Your task to perform on an android device: turn on location history Image 0: 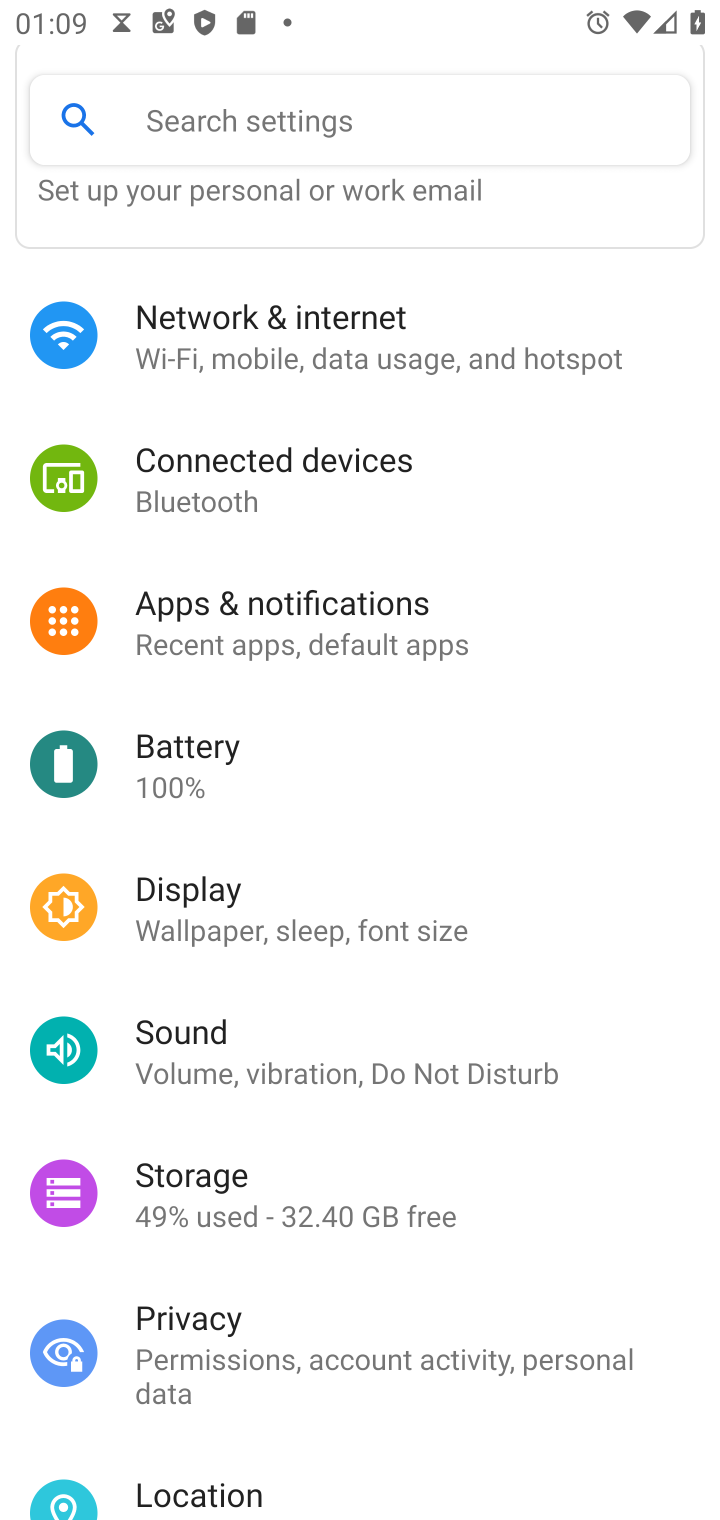
Step 0: press home button
Your task to perform on an android device: turn on location history Image 1: 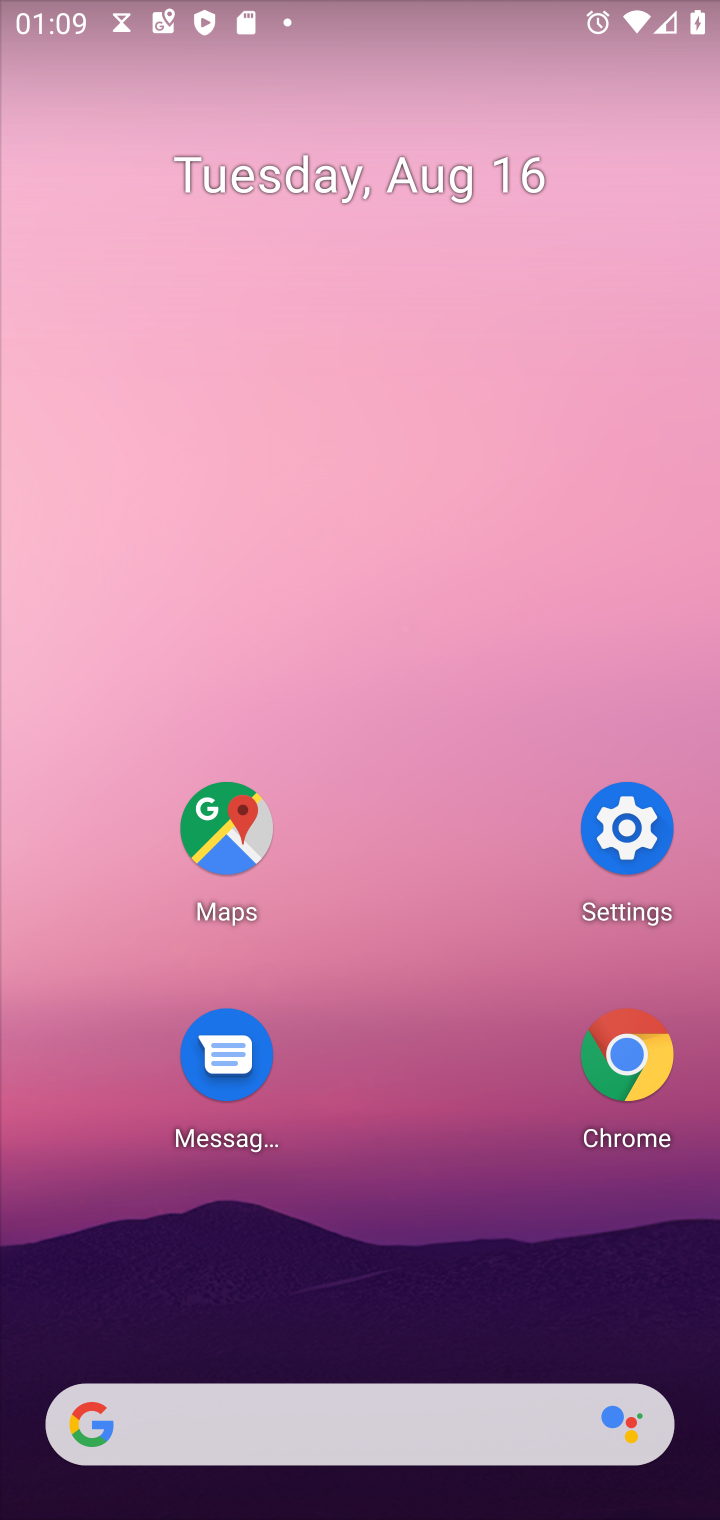
Step 1: click (218, 845)
Your task to perform on an android device: turn on location history Image 2: 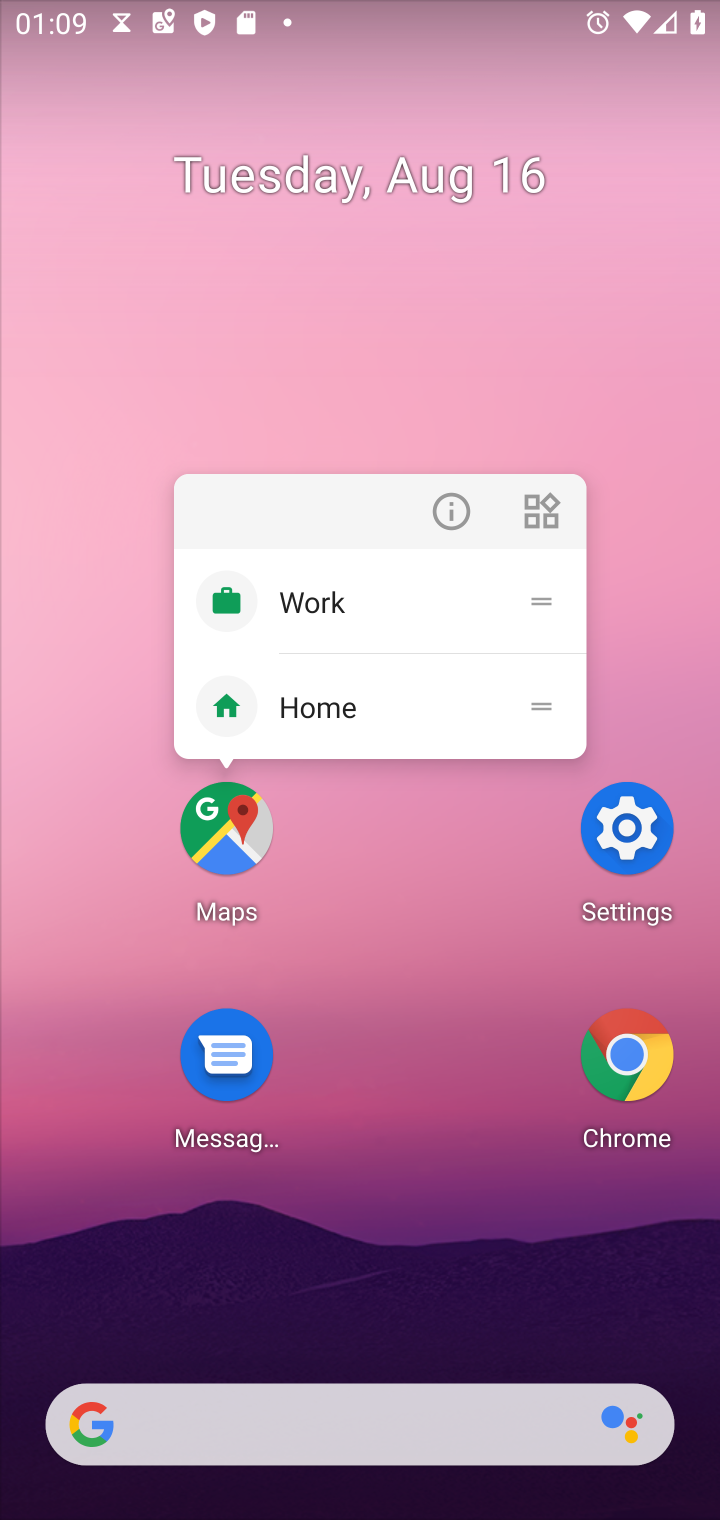
Step 2: click (214, 854)
Your task to perform on an android device: turn on location history Image 3: 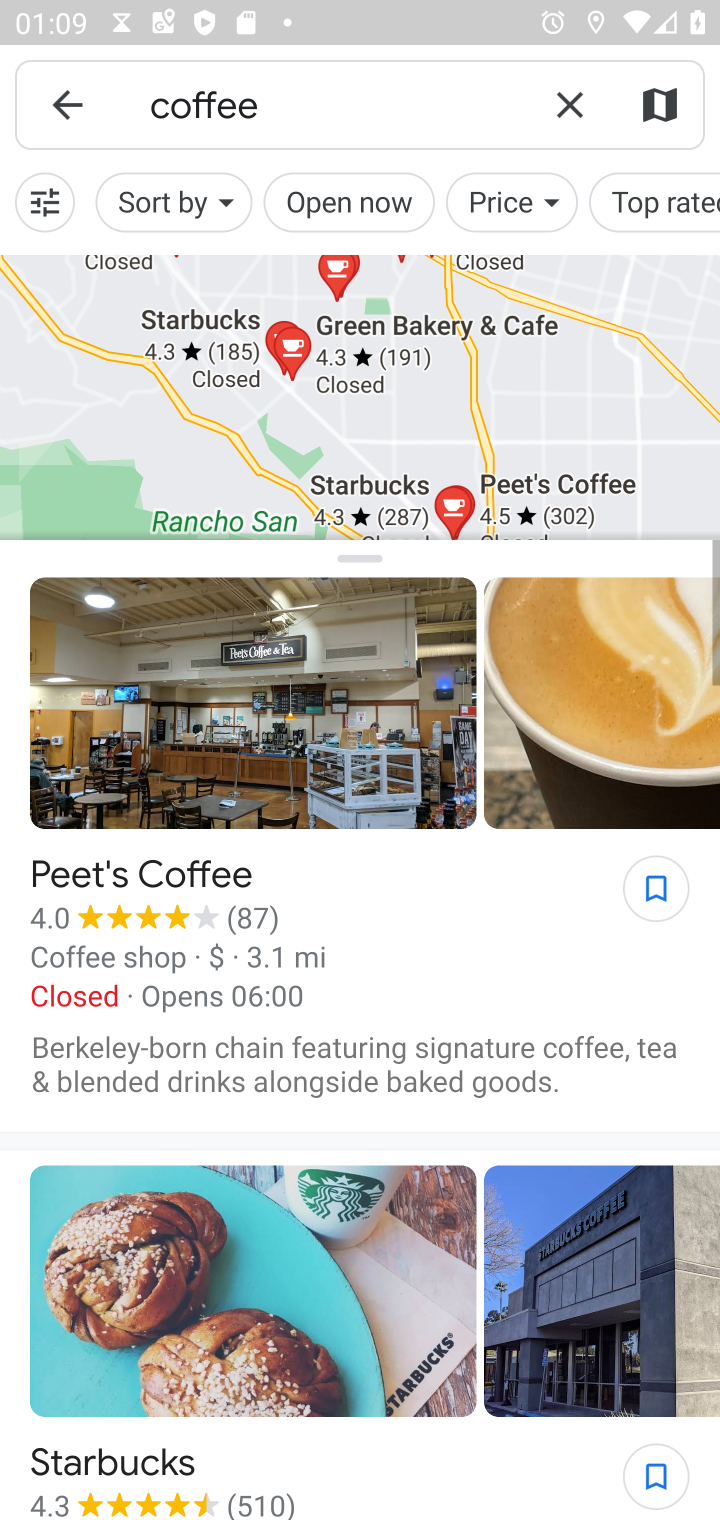
Step 3: press back button
Your task to perform on an android device: turn on location history Image 4: 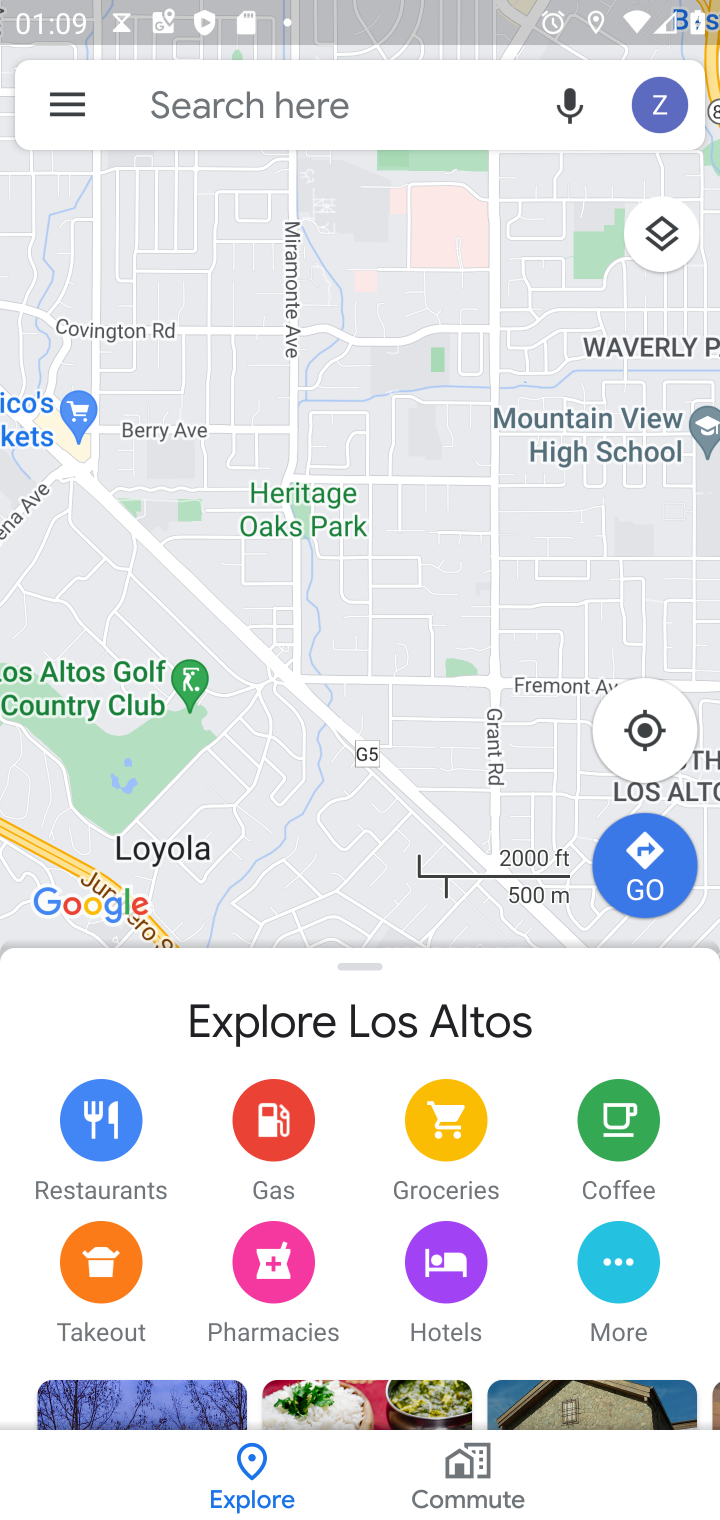
Step 4: click (64, 109)
Your task to perform on an android device: turn on location history Image 5: 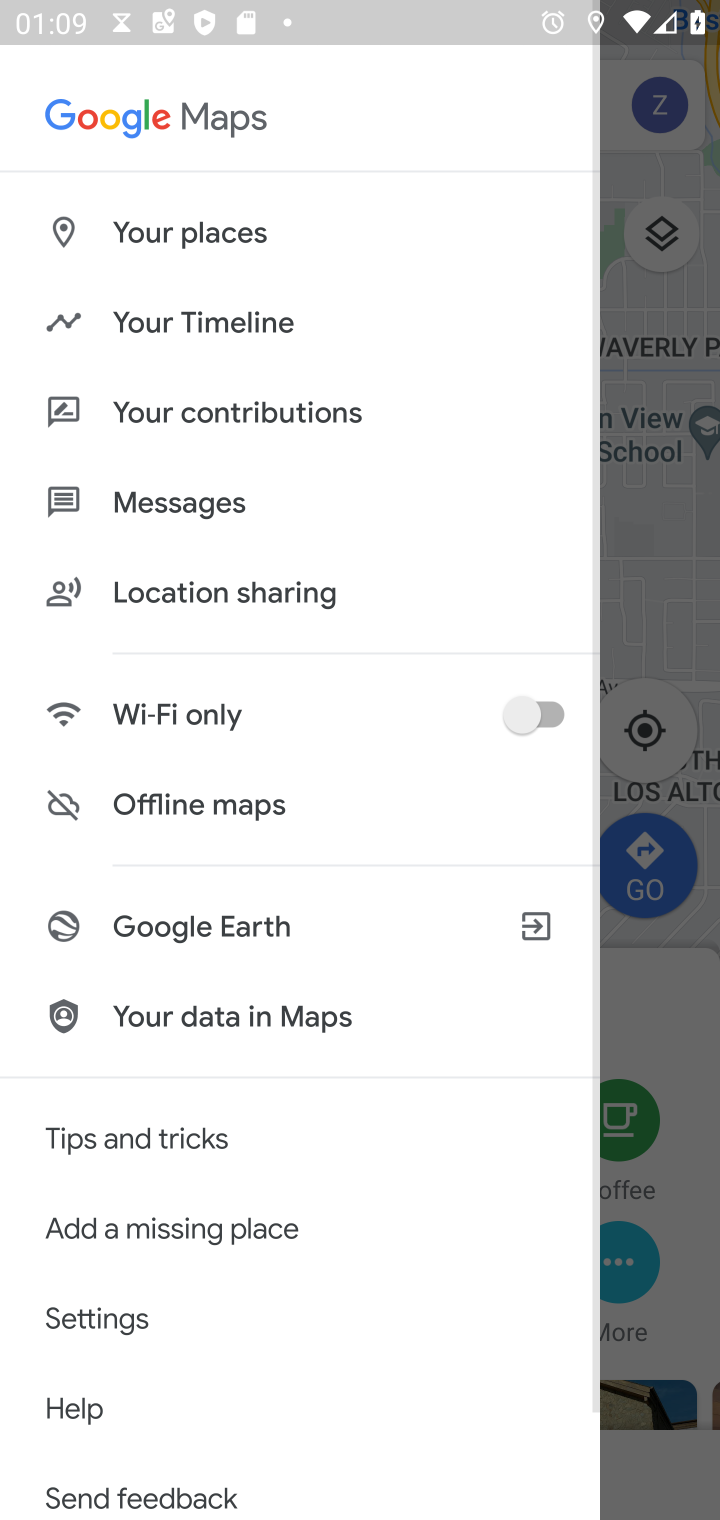
Step 5: click (247, 325)
Your task to perform on an android device: turn on location history Image 6: 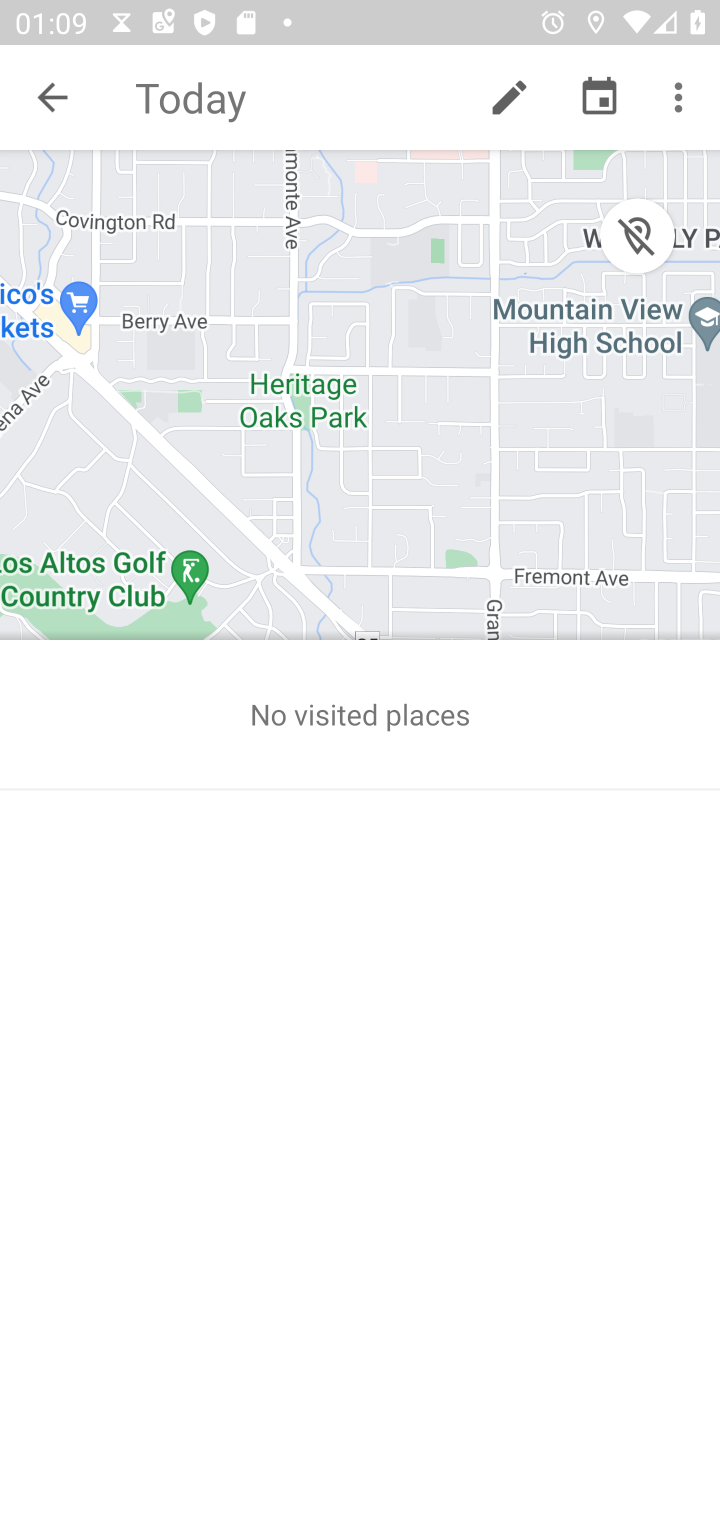
Step 6: click (669, 107)
Your task to perform on an android device: turn on location history Image 7: 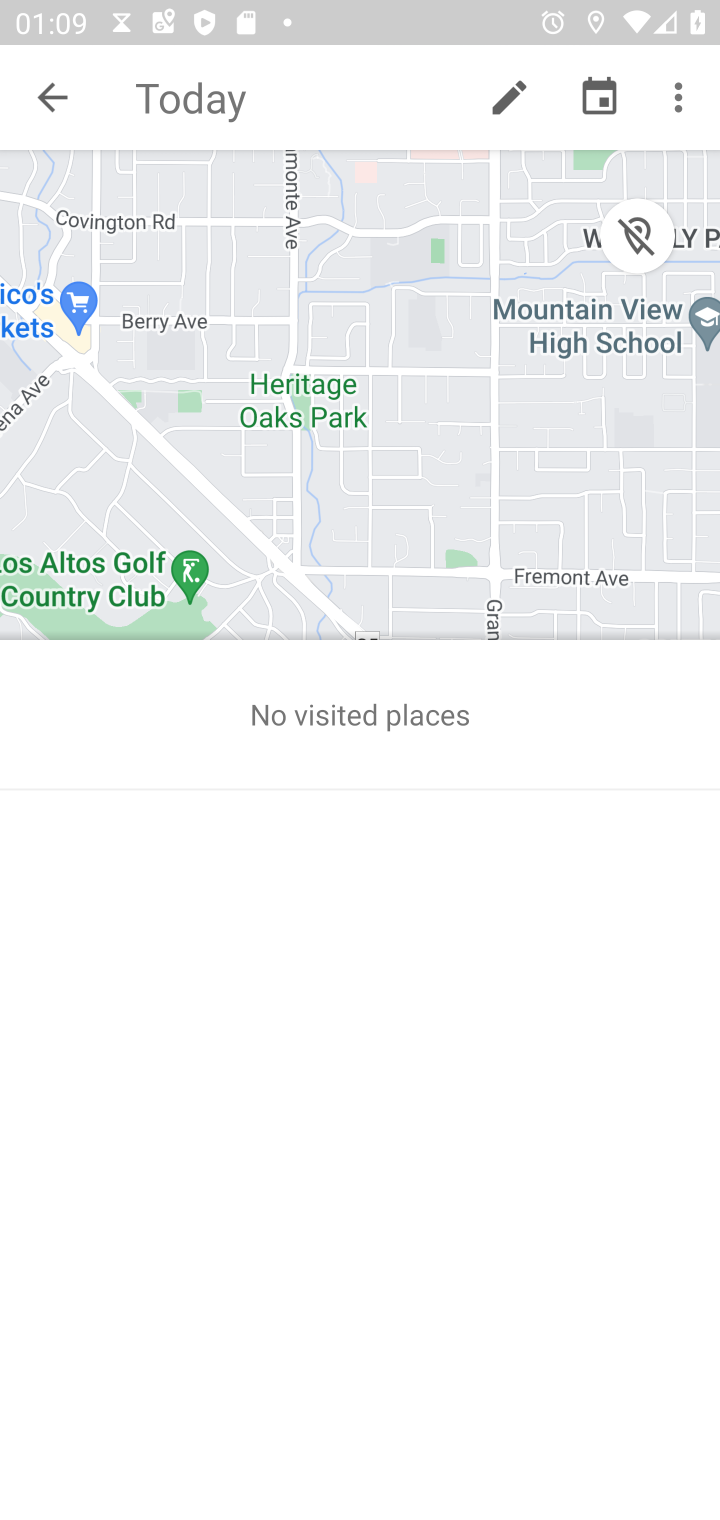
Step 7: click (672, 104)
Your task to perform on an android device: turn on location history Image 8: 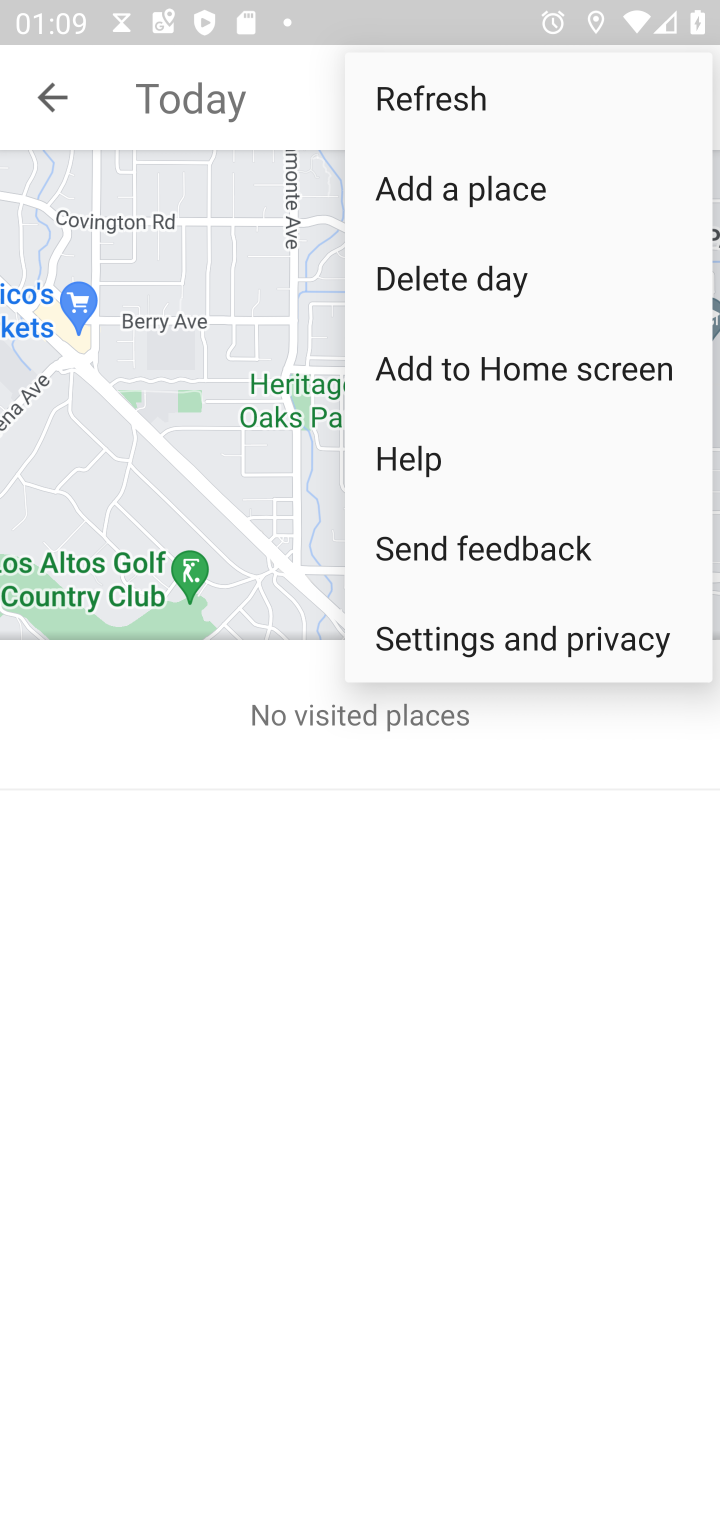
Step 8: click (547, 623)
Your task to perform on an android device: turn on location history Image 9: 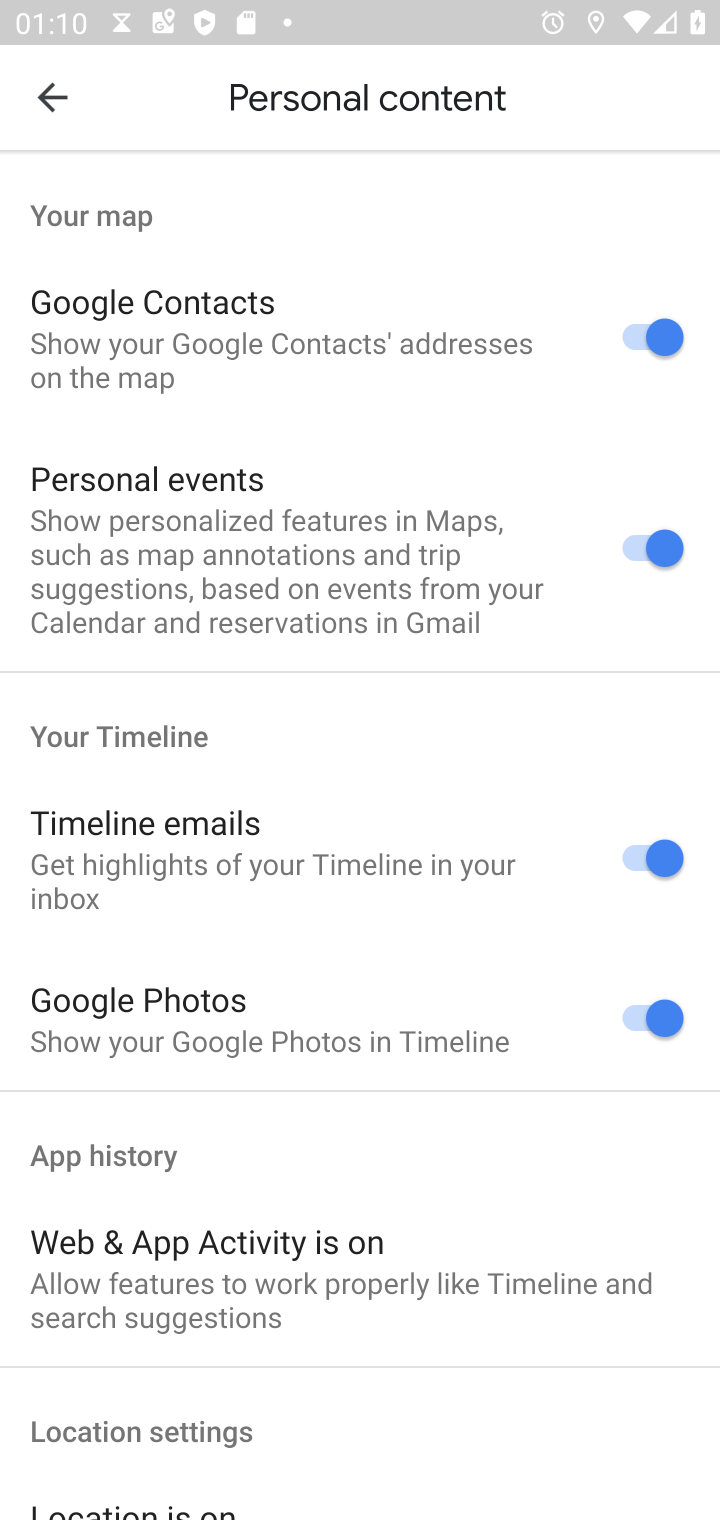
Step 9: drag from (392, 1345) to (688, 314)
Your task to perform on an android device: turn on location history Image 10: 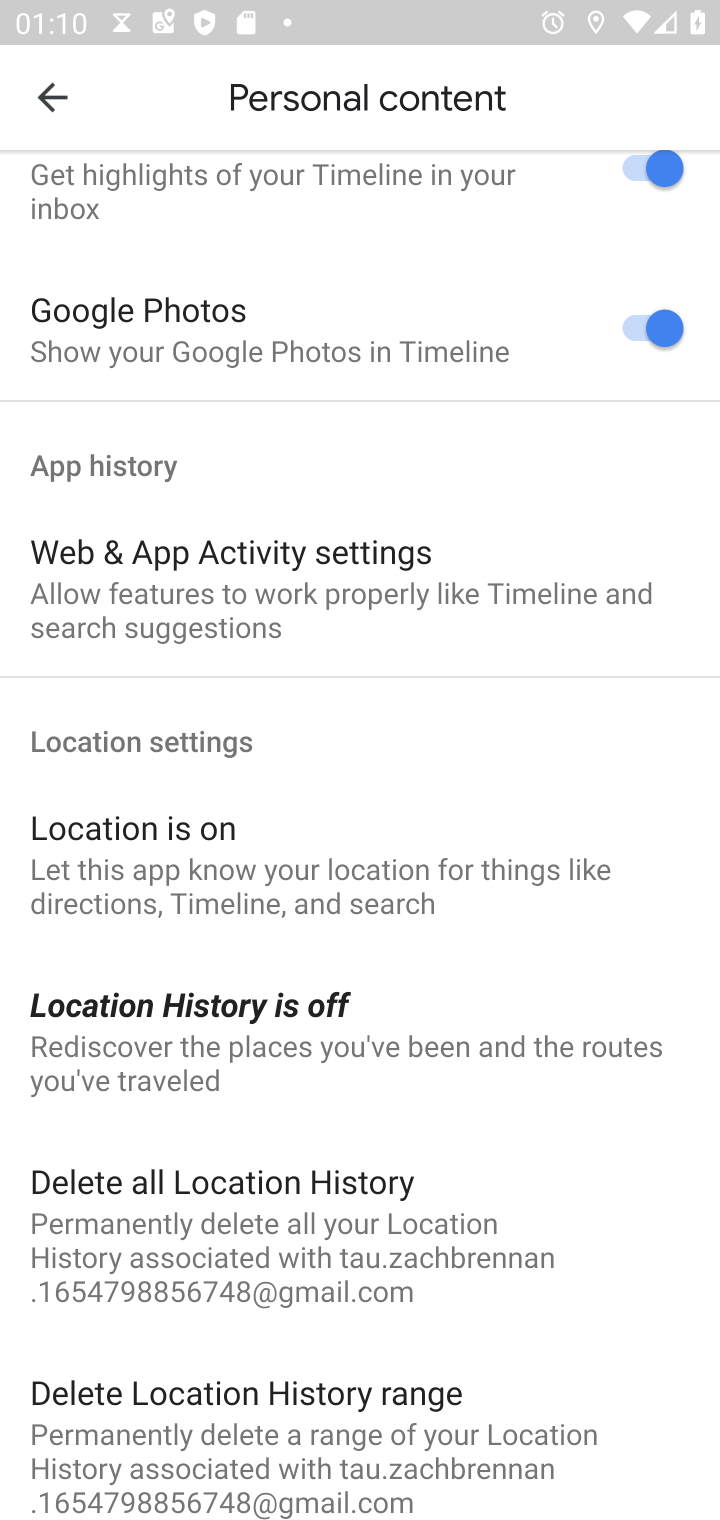
Step 10: click (292, 1025)
Your task to perform on an android device: turn on location history Image 11: 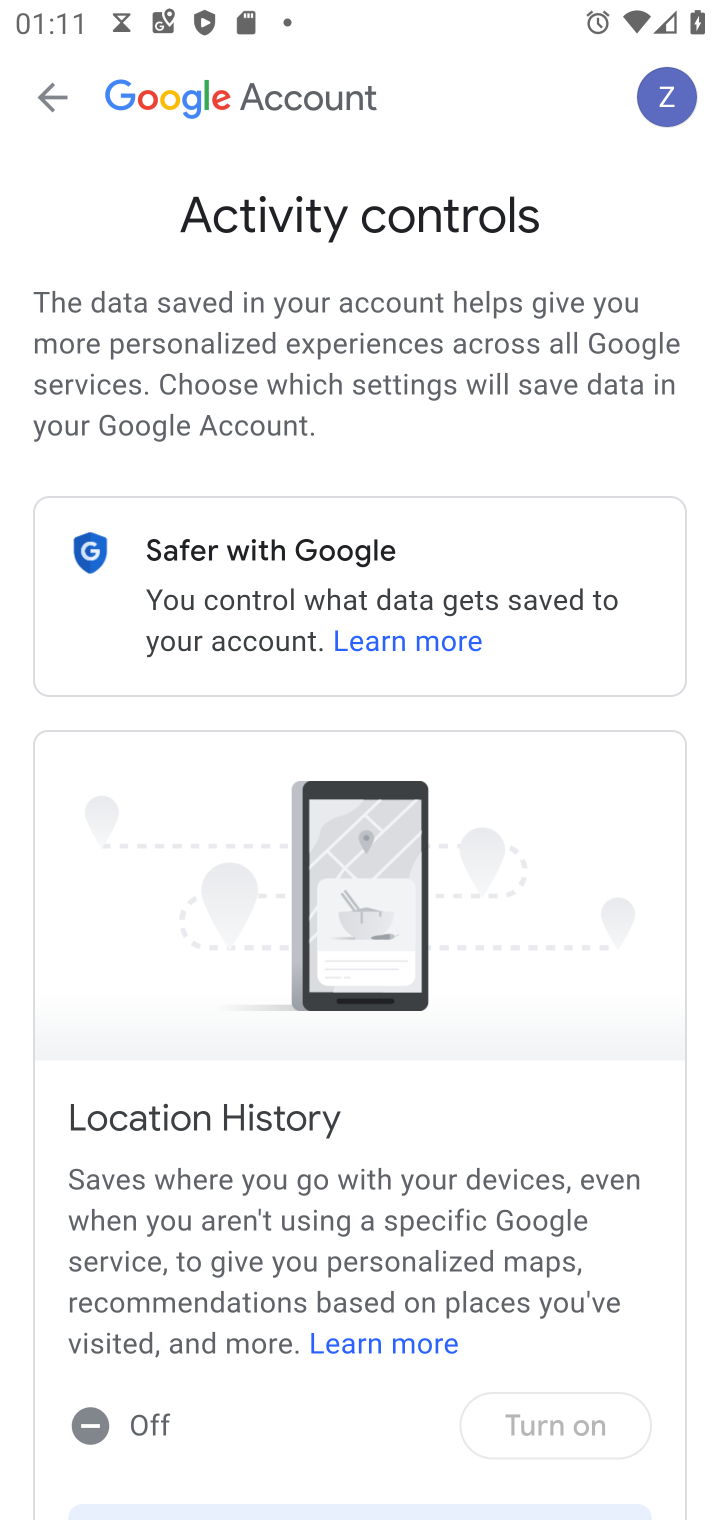
Step 11: task complete